Your task to perform on an android device: Go to network settings Image 0: 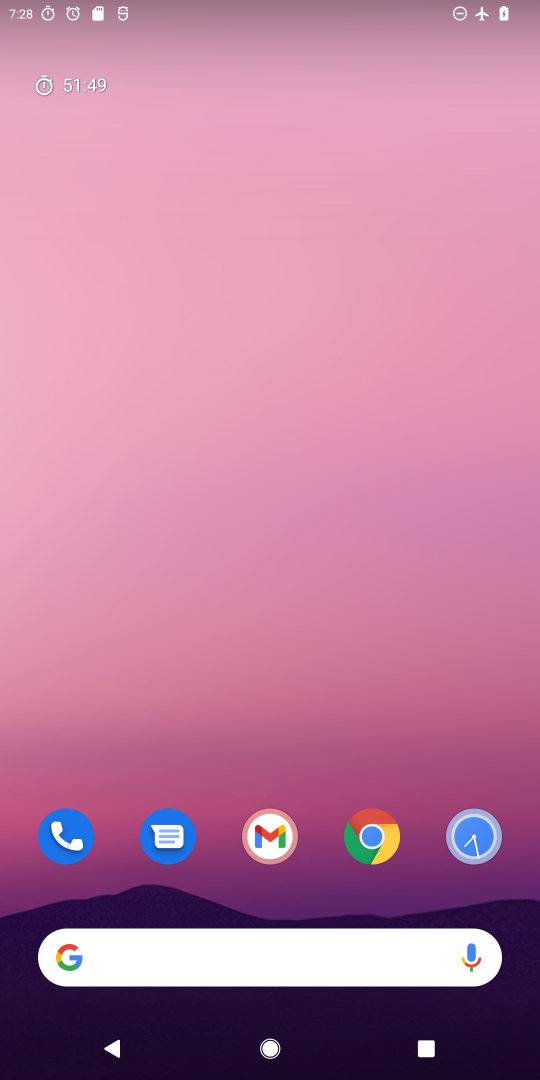
Step 0: drag from (275, 599) to (228, 174)
Your task to perform on an android device: Go to network settings Image 1: 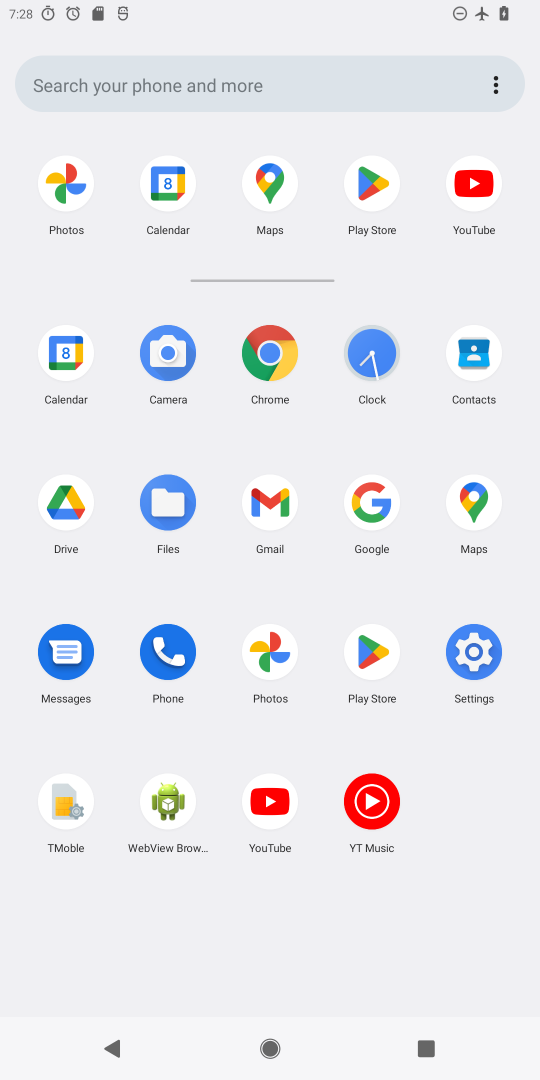
Step 1: click (495, 650)
Your task to perform on an android device: Go to network settings Image 2: 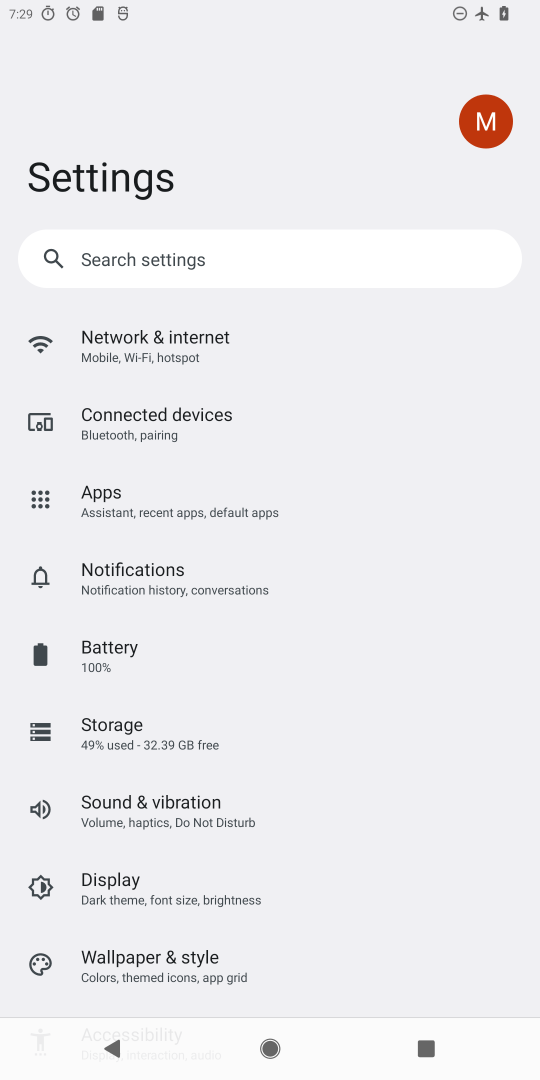
Step 2: click (232, 339)
Your task to perform on an android device: Go to network settings Image 3: 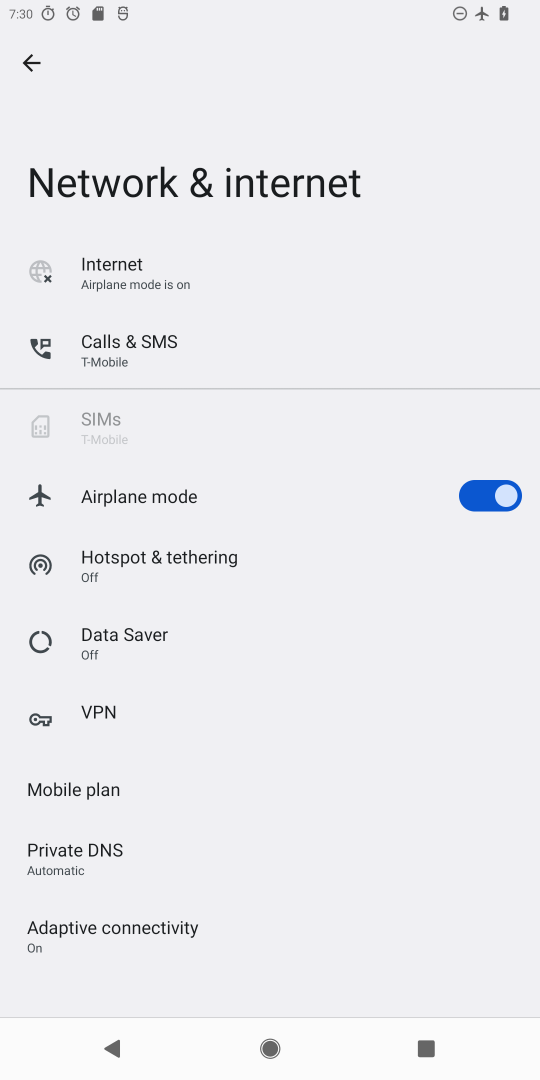
Step 3: task complete